Your task to perform on an android device: Open Chrome and go to settings Image 0: 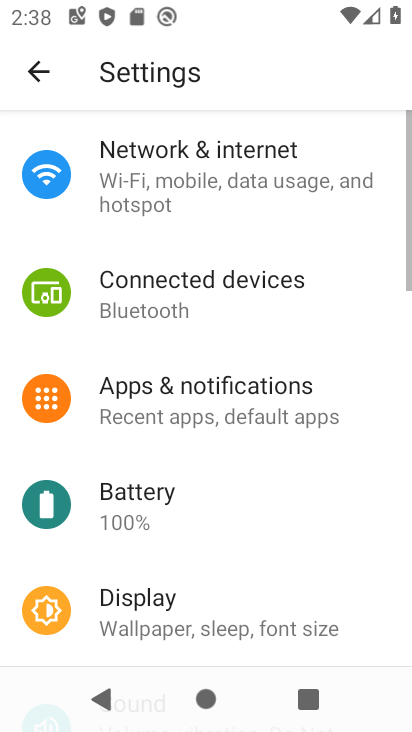
Step 0: press back button
Your task to perform on an android device: Open Chrome and go to settings Image 1: 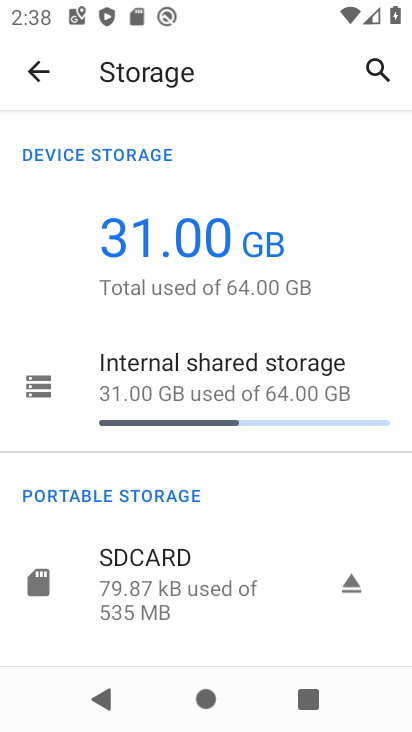
Step 1: press back button
Your task to perform on an android device: Open Chrome and go to settings Image 2: 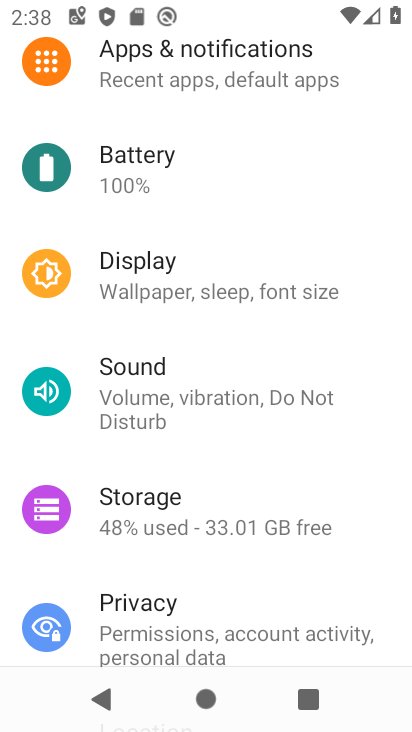
Step 2: press back button
Your task to perform on an android device: Open Chrome and go to settings Image 3: 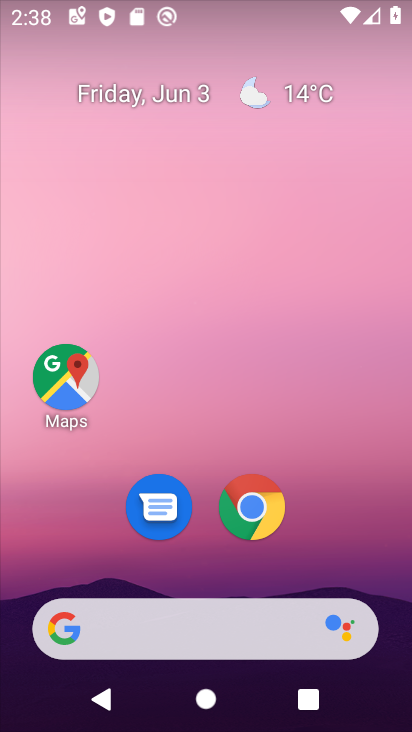
Step 3: click (250, 506)
Your task to perform on an android device: Open Chrome and go to settings Image 4: 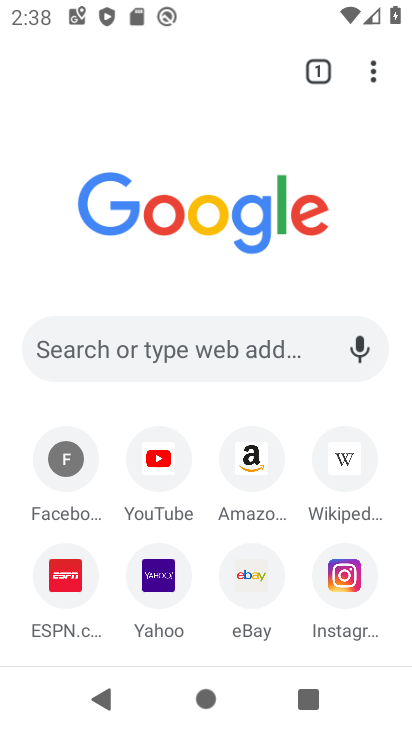
Step 4: click (374, 72)
Your task to perform on an android device: Open Chrome and go to settings Image 5: 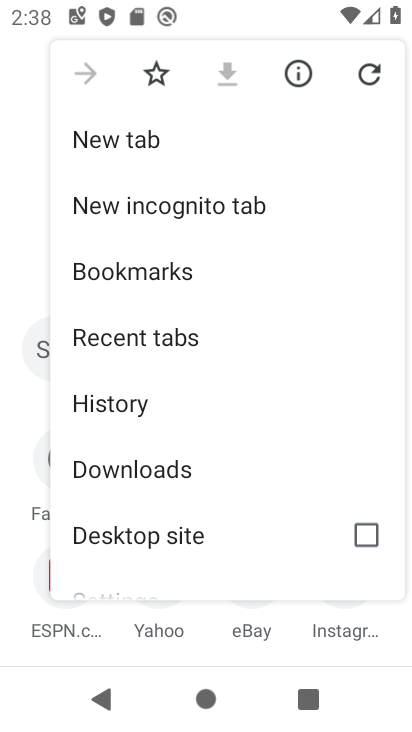
Step 5: drag from (159, 446) to (254, 340)
Your task to perform on an android device: Open Chrome and go to settings Image 6: 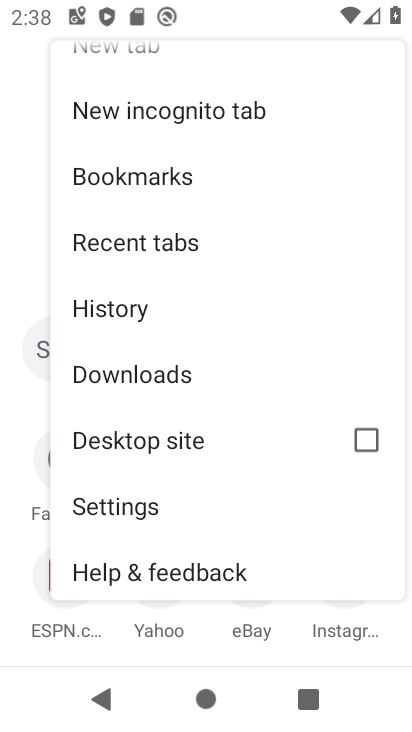
Step 6: drag from (175, 501) to (279, 386)
Your task to perform on an android device: Open Chrome and go to settings Image 7: 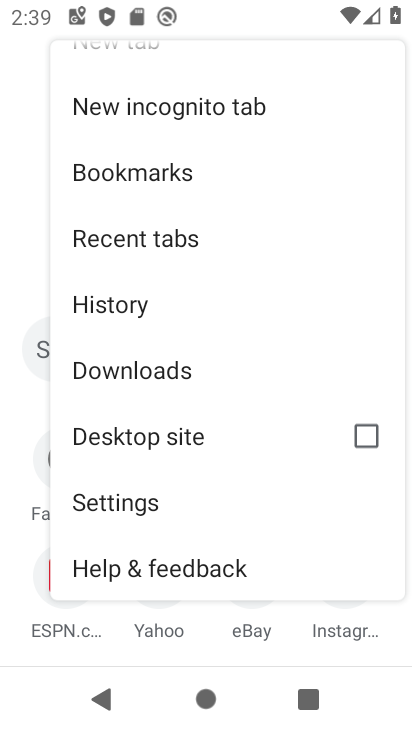
Step 7: click (151, 502)
Your task to perform on an android device: Open Chrome and go to settings Image 8: 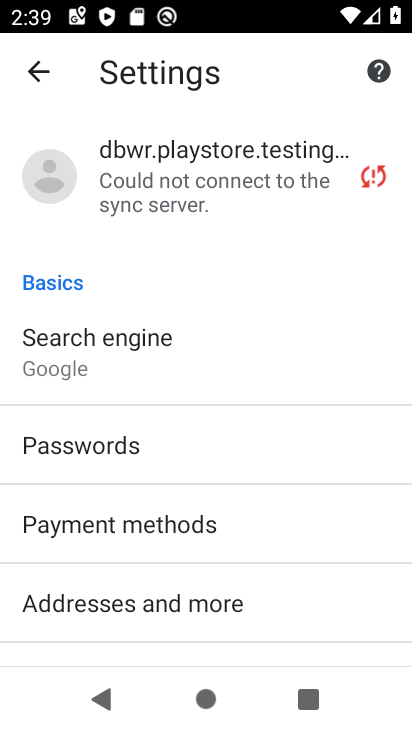
Step 8: task complete